Your task to perform on an android device: stop showing notifications on the lock screen Image 0: 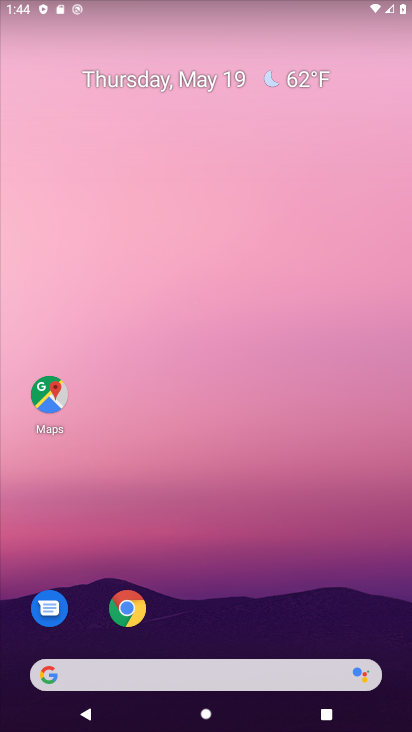
Step 0: drag from (292, 641) to (204, 63)
Your task to perform on an android device: stop showing notifications on the lock screen Image 1: 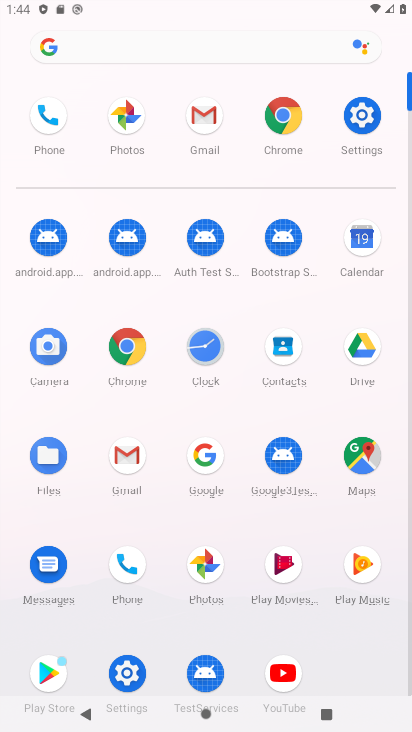
Step 1: click (364, 128)
Your task to perform on an android device: stop showing notifications on the lock screen Image 2: 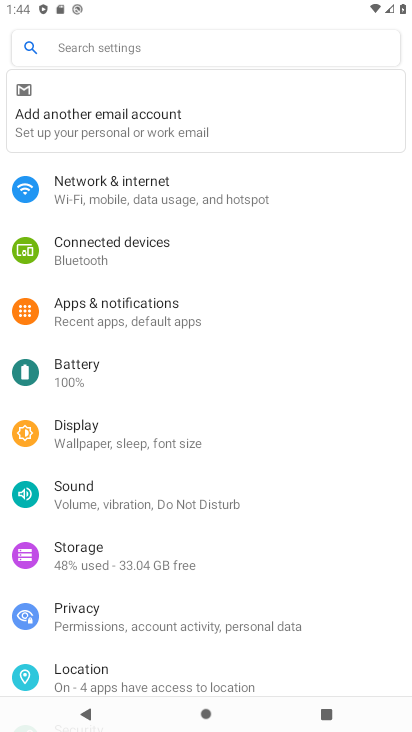
Step 2: click (132, 335)
Your task to perform on an android device: stop showing notifications on the lock screen Image 3: 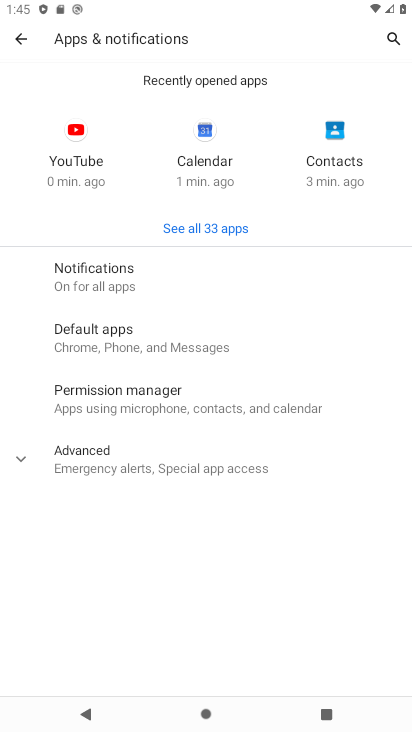
Step 3: click (125, 282)
Your task to perform on an android device: stop showing notifications on the lock screen Image 4: 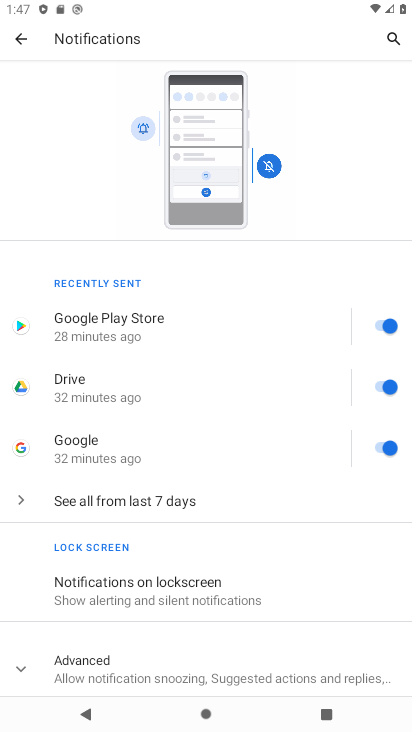
Step 4: click (131, 592)
Your task to perform on an android device: stop showing notifications on the lock screen Image 5: 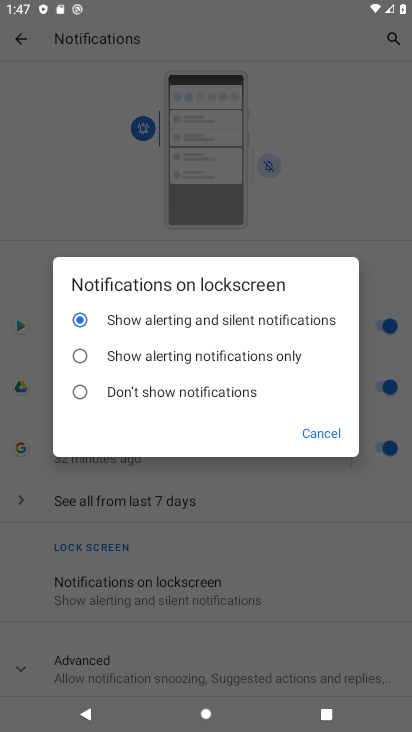
Step 5: click (131, 404)
Your task to perform on an android device: stop showing notifications on the lock screen Image 6: 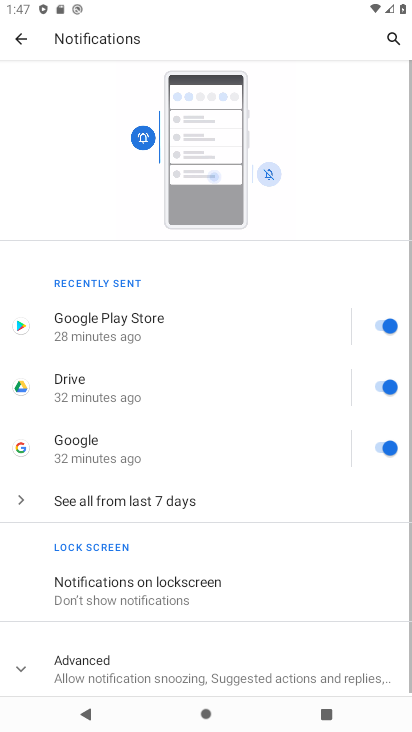
Step 6: task complete